Your task to perform on an android device: Go to notification settings Image 0: 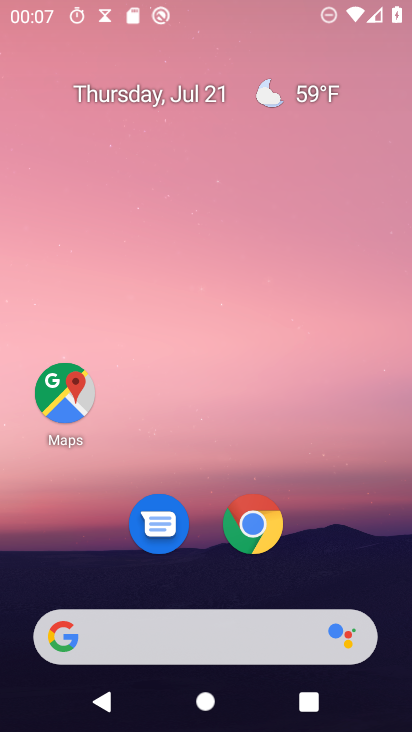
Step 0: press home button
Your task to perform on an android device: Go to notification settings Image 1: 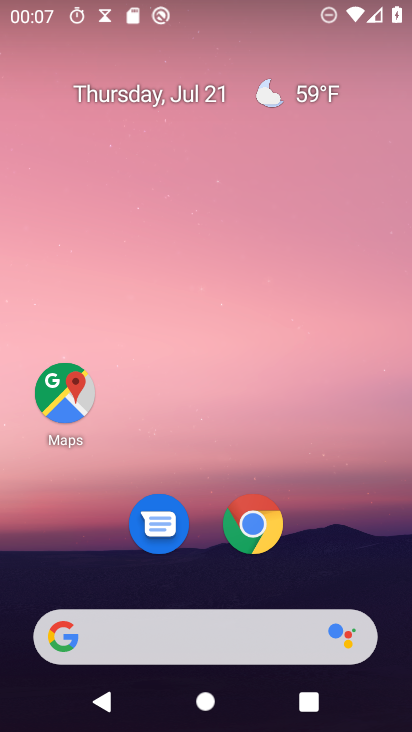
Step 1: drag from (174, 641) to (333, 64)
Your task to perform on an android device: Go to notification settings Image 2: 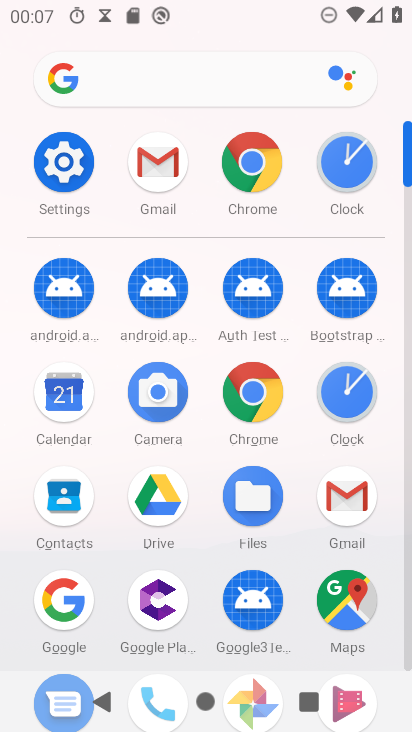
Step 2: click (68, 164)
Your task to perform on an android device: Go to notification settings Image 3: 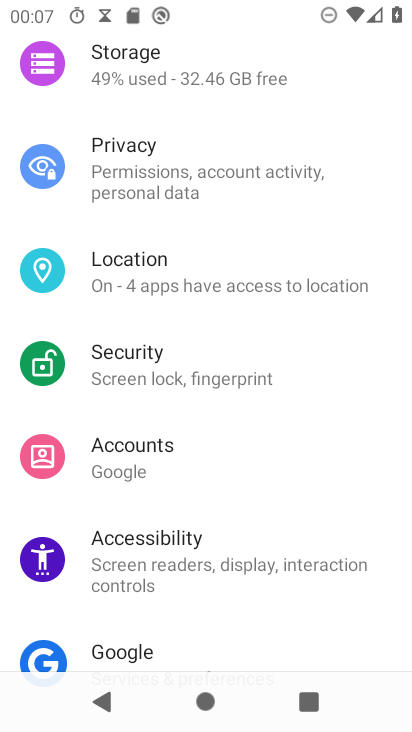
Step 3: drag from (234, 521) to (296, 125)
Your task to perform on an android device: Go to notification settings Image 4: 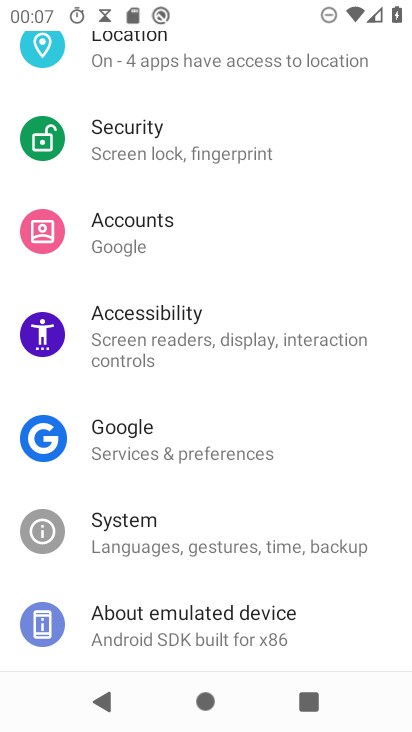
Step 4: drag from (309, 162) to (252, 615)
Your task to perform on an android device: Go to notification settings Image 5: 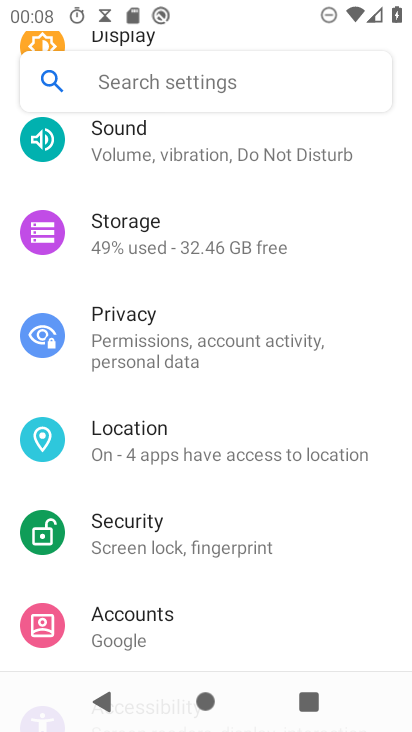
Step 5: drag from (276, 254) to (250, 639)
Your task to perform on an android device: Go to notification settings Image 6: 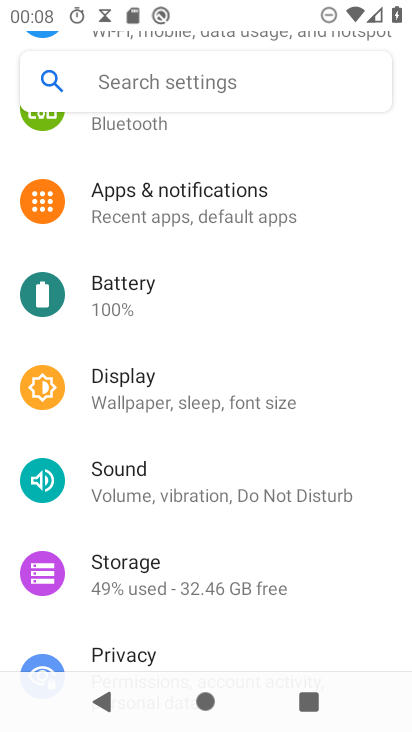
Step 6: click (215, 200)
Your task to perform on an android device: Go to notification settings Image 7: 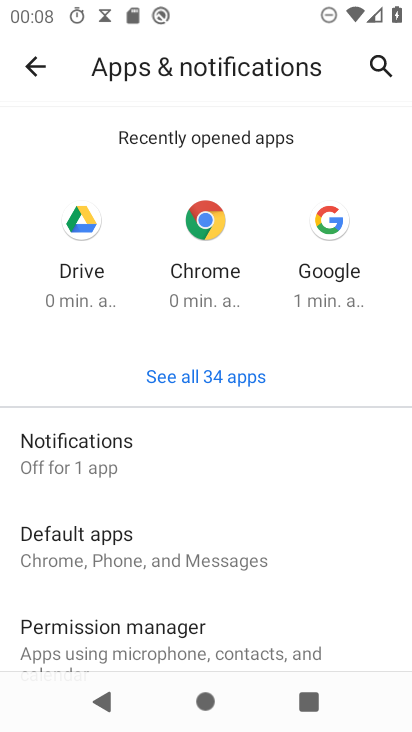
Step 7: click (117, 453)
Your task to perform on an android device: Go to notification settings Image 8: 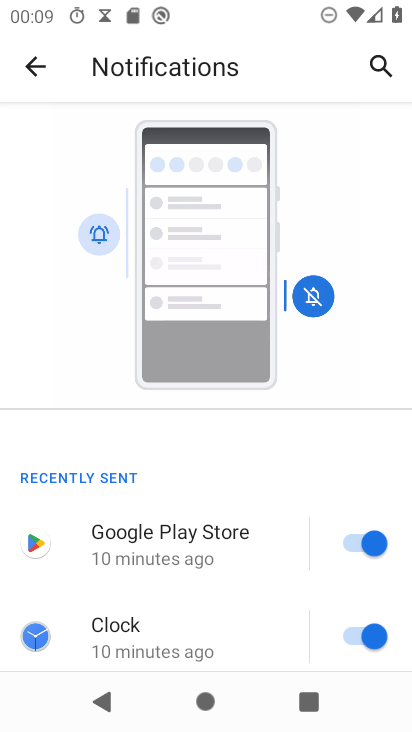
Step 8: task complete